Your task to perform on an android device: open app "Instagram" Image 0: 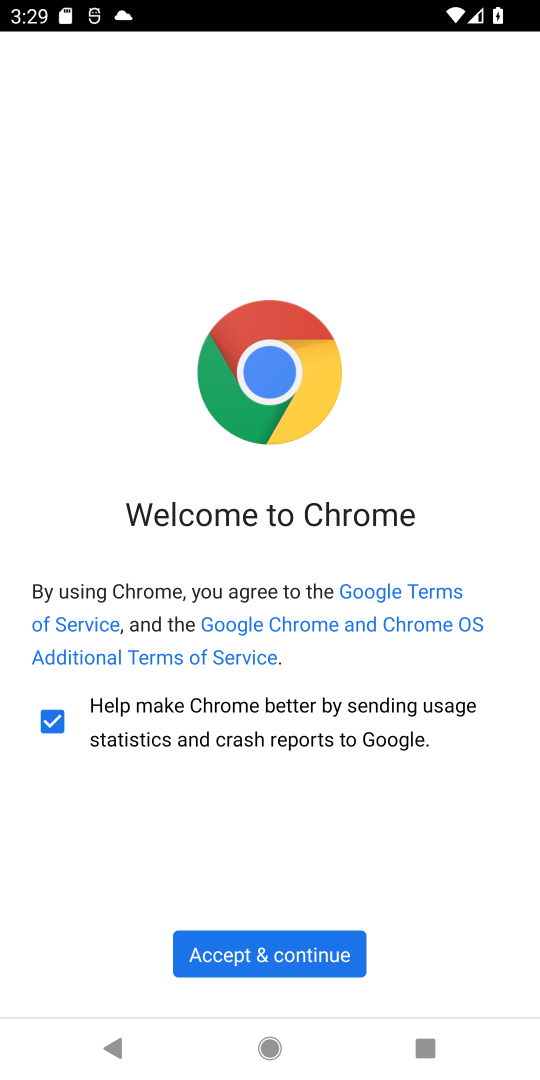
Step 0: press home button
Your task to perform on an android device: open app "Instagram" Image 1: 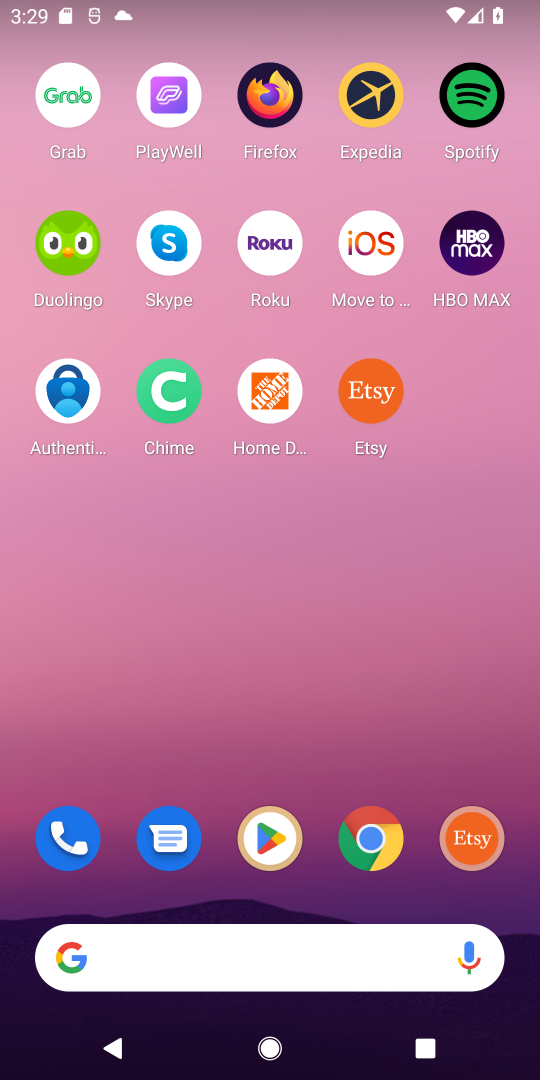
Step 1: click (281, 842)
Your task to perform on an android device: open app "Instagram" Image 2: 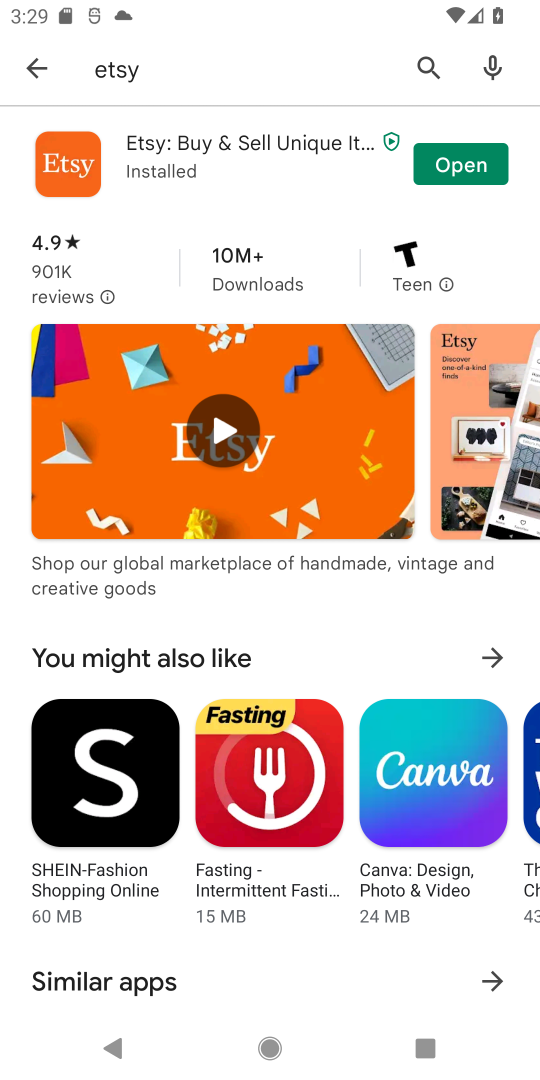
Step 2: click (22, 64)
Your task to perform on an android device: open app "Instagram" Image 3: 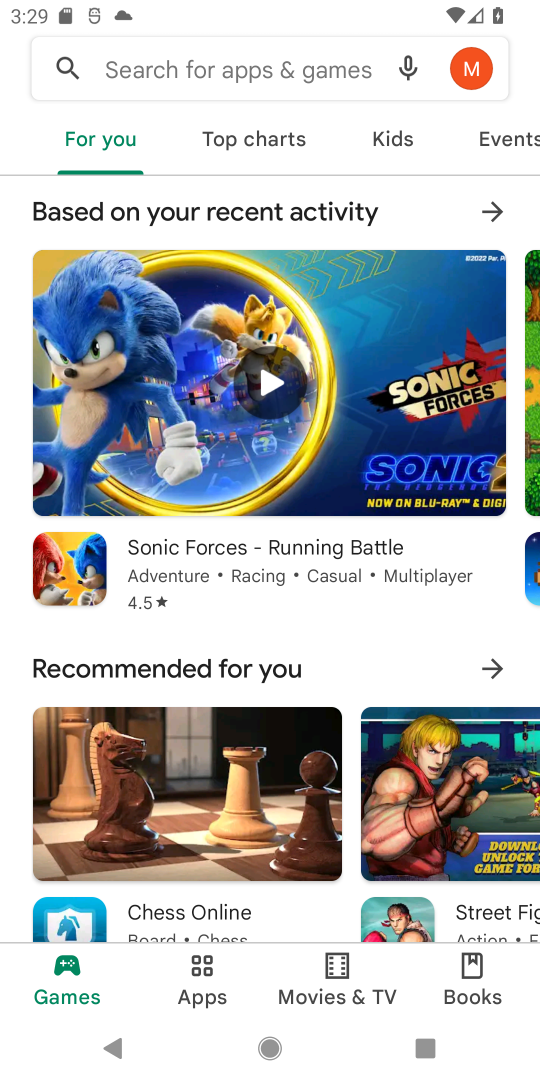
Step 3: click (194, 87)
Your task to perform on an android device: open app "Instagram" Image 4: 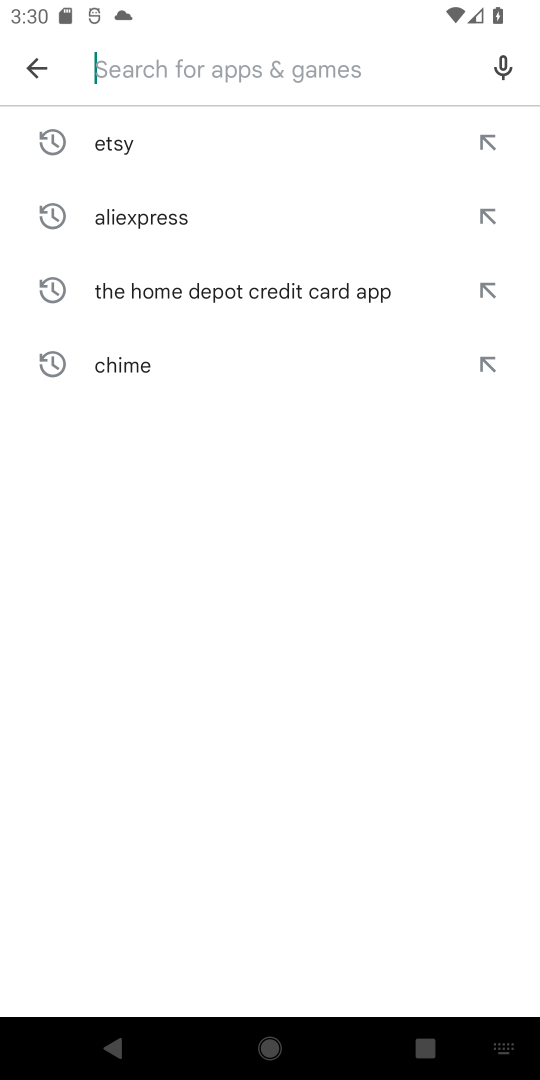
Step 4: type "Instagram"
Your task to perform on an android device: open app "Instagram" Image 5: 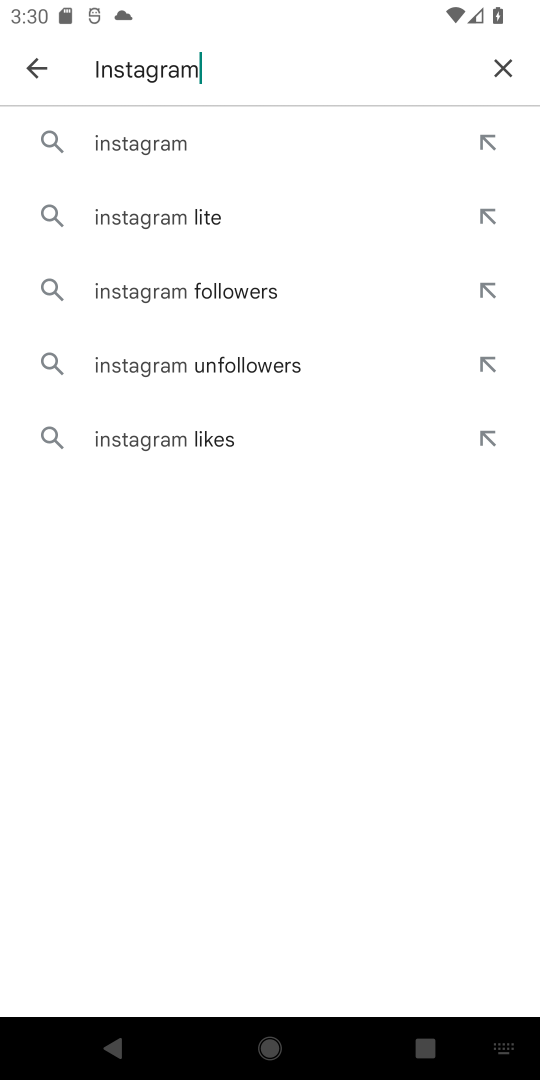
Step 5: click (152, 159)
Your task to perform on an android device: open app "Instagram" Image 6: 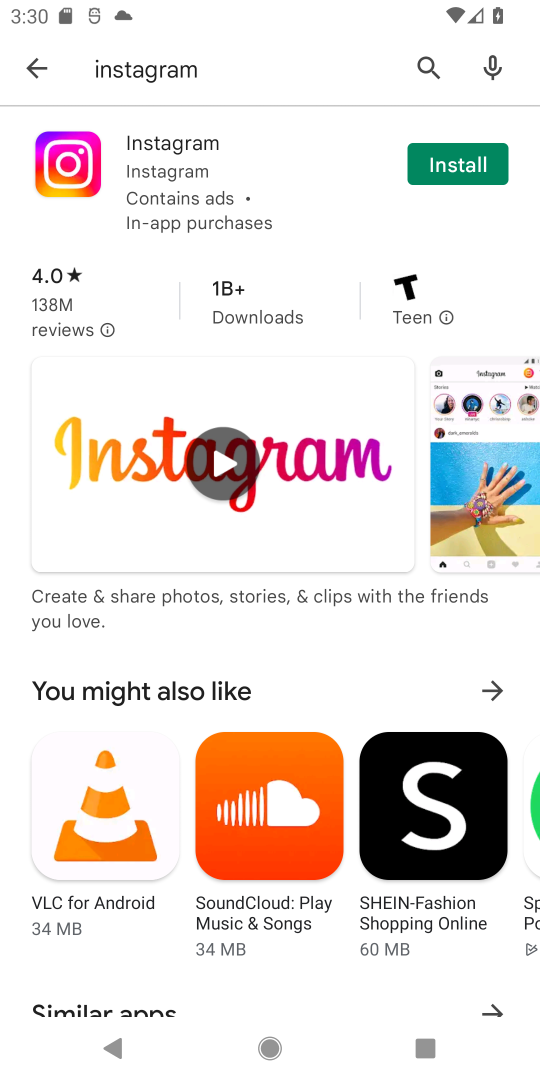
Step 6: task complete